Your task to perform on an android device: add a contact Image 0: 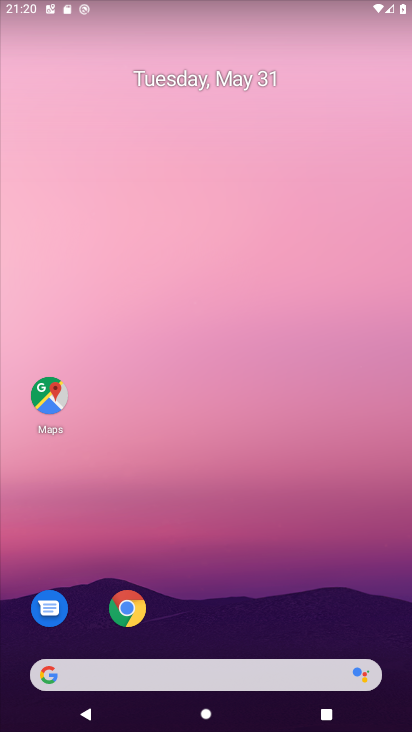
Step 0: drag from (248, 606) to (291, 93)
Your task to perform on an android device: add a contact Image 1: 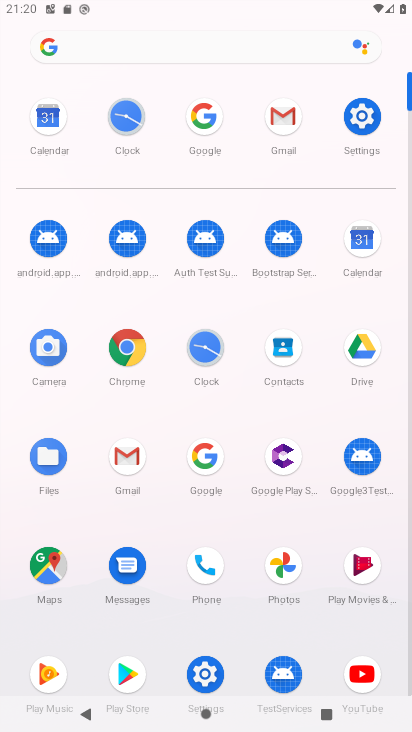
Step 1: click (285, 350)
Your task to perform on an android device: add a contact Image 2: 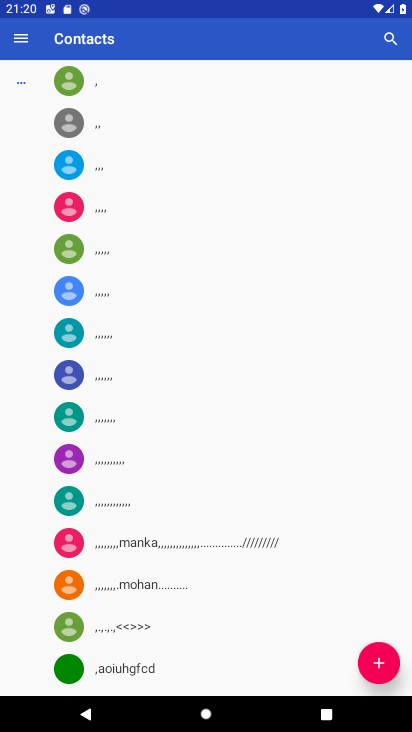
Step 2: click (383, 662)
Your task to perform on an android device: add a contact Image 3: 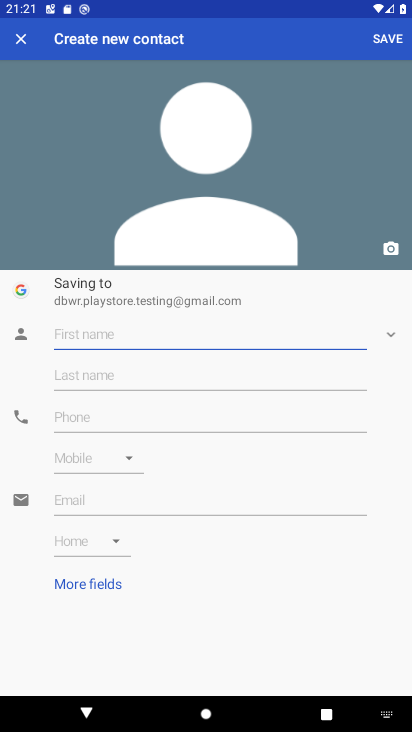
Step 3: type "Chandraparatap"
Your task to perform on an android device: add a contact Image 4: 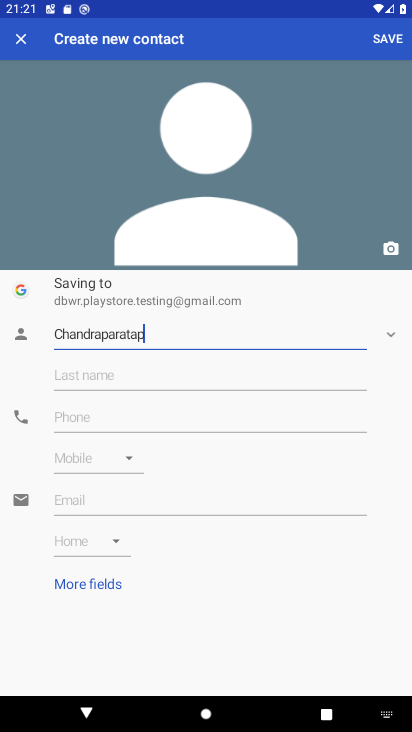
Step 4: click (261, 381)
Your task to perform on an android device: add a contact Image 5: 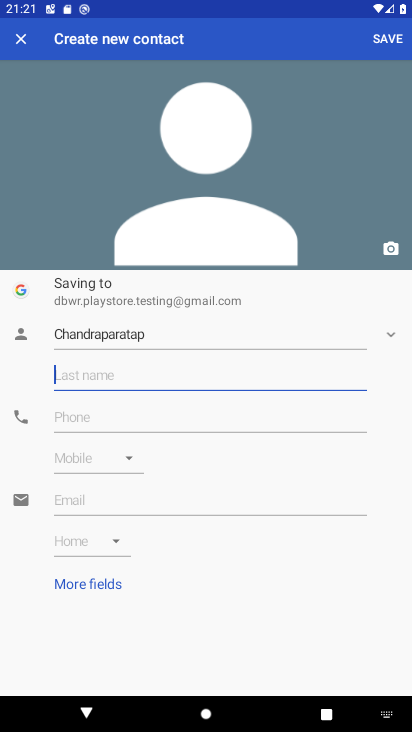
Step 5: type "Shivnarayan"
Your task to perform on an android device: add a contact Image 6: 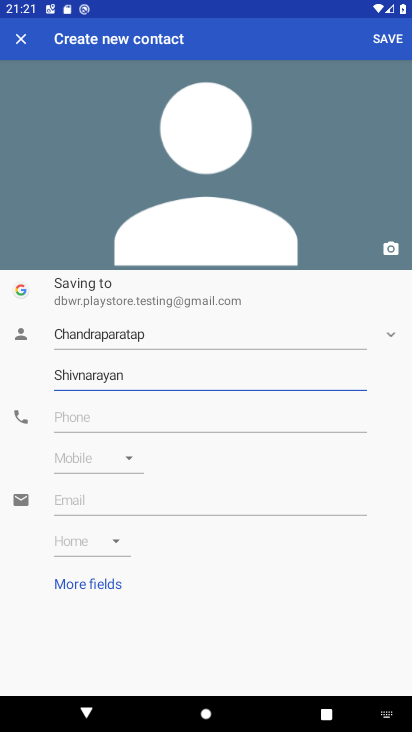
Step 6: click (276, 403)
Your task to perform on an android device: add a contact Image 7: 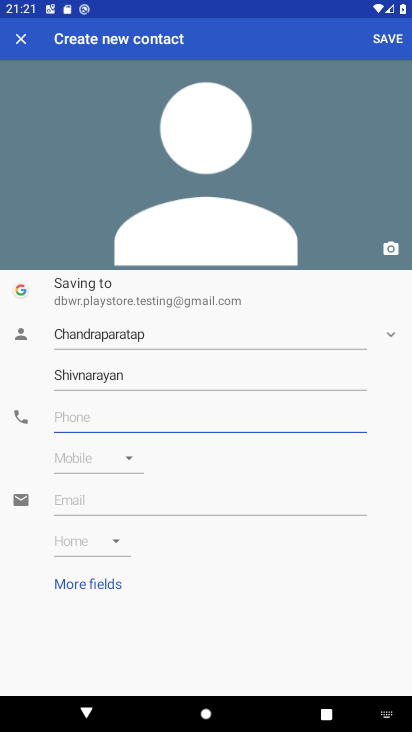
Step 7: type "09988776655"
Your task to perform on an android device: add a contact Image 8: 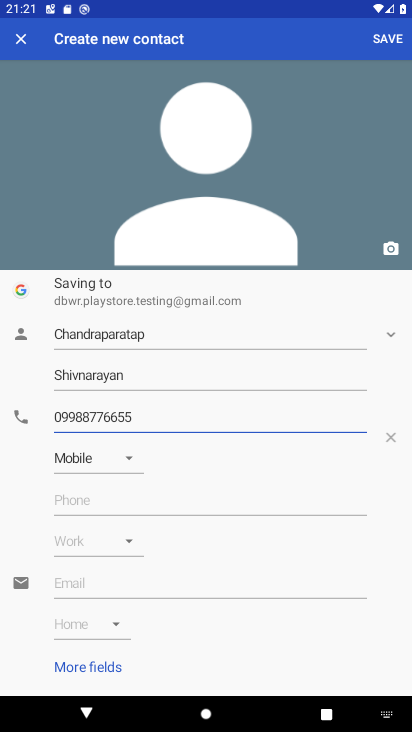
Step 8: click (394, 39)
Your task to perform on an android device: add a contact Image 9: 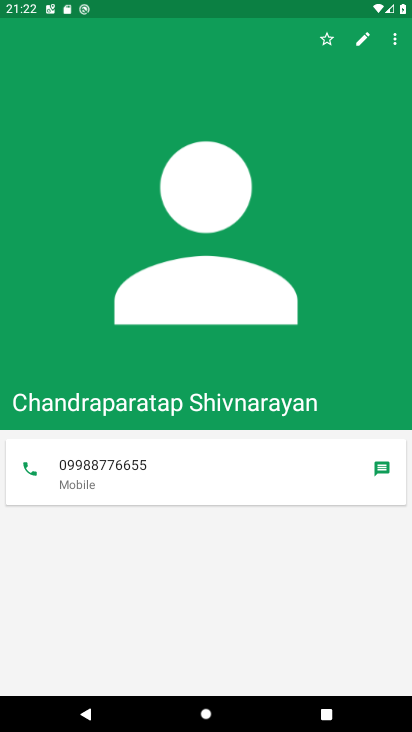
Step 9: task complete